Your task to perform on an android device: turn off translation in the chrome app Image 0: 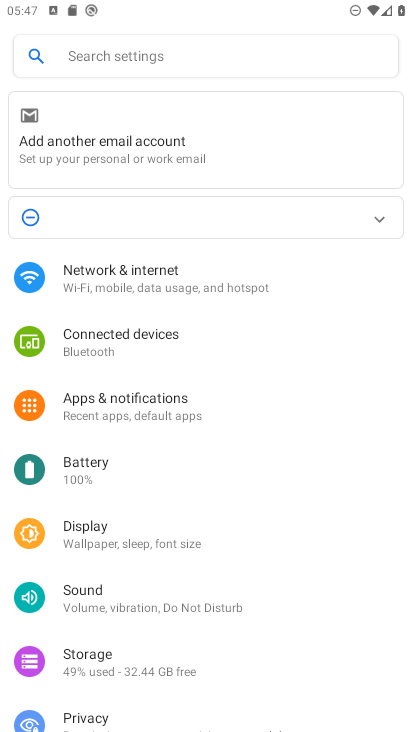
Step 0: press home button
Your task to perform on an android device: turn off translation in the chrome app Image 1: 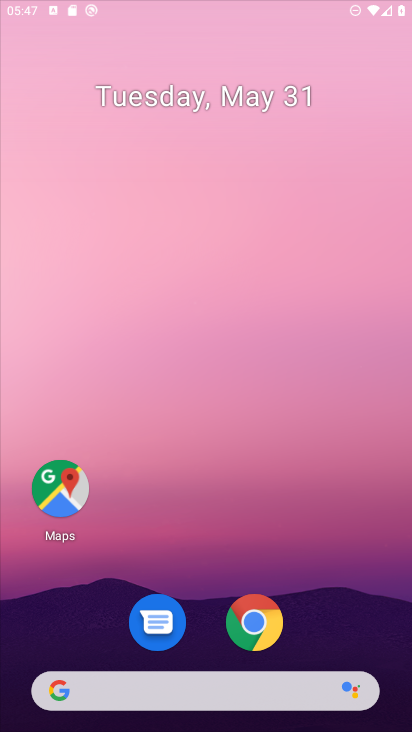
Step 1: drag from (240, 729) to (287, 24)
Your task to perform on an android device: turn off translation in the chrome app Image 2: 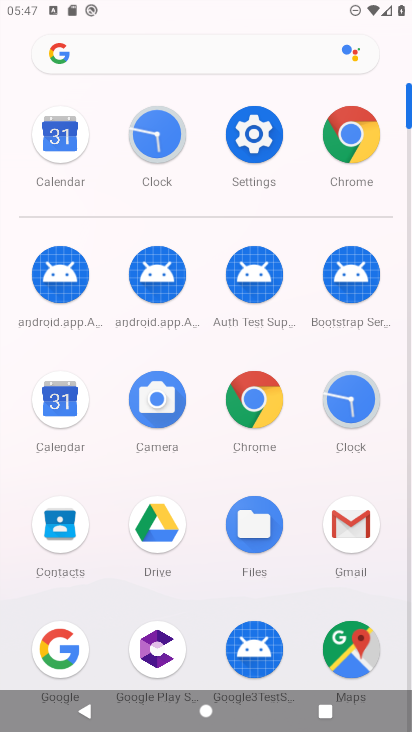
Step 2: click (264, 412)
Your task to perform on an android device: turn off translation in the chrome app Image 3: 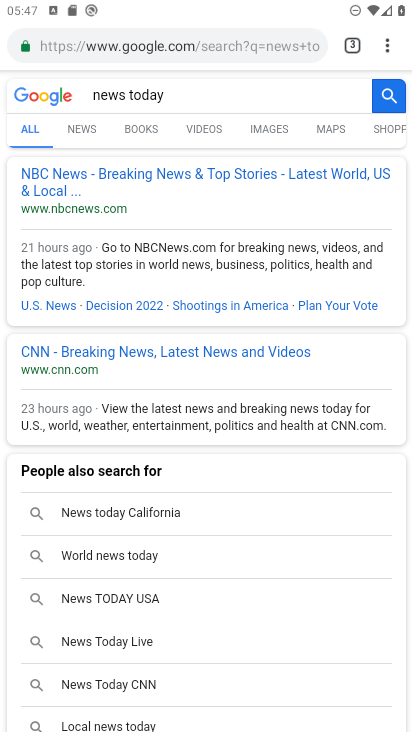
Step 3: drag from (388, 42) to (273, 514)
Your task to perform on an android device: turn off translation in the chrome app Image 4: 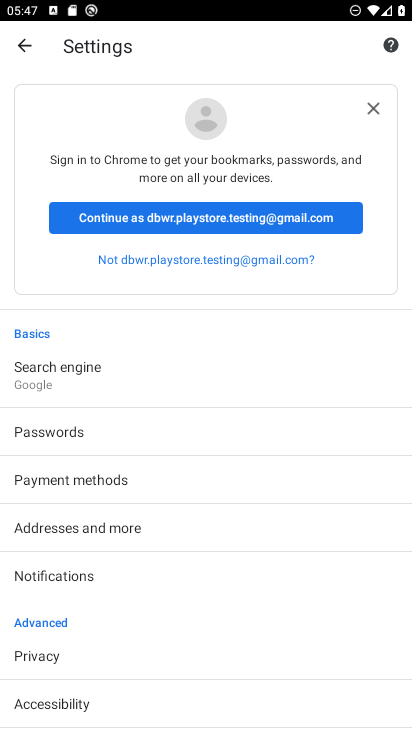
Step 4: drag from (194, 647) to (206, 235)
Your task to perform on an android device: turn off translation in the chrome app Image 5: 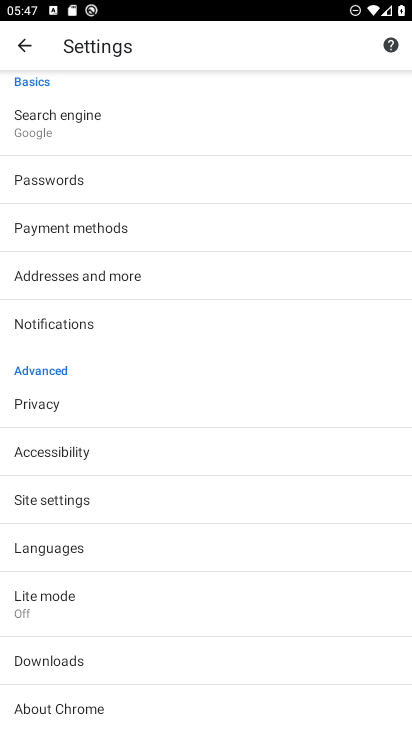
Step 5: click (79, 561)
Your task to perform on an android device: turn off translation in the chrome app Image 6: 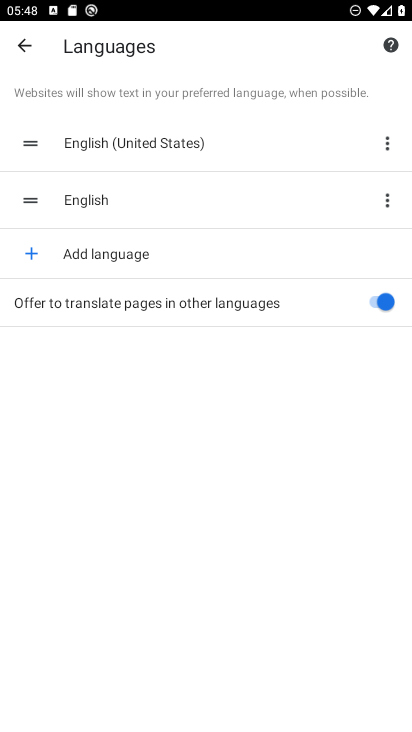
Step 6: click (369, 296)
Your task to perform on an android device: turn off translation in the chrome app Image 7: 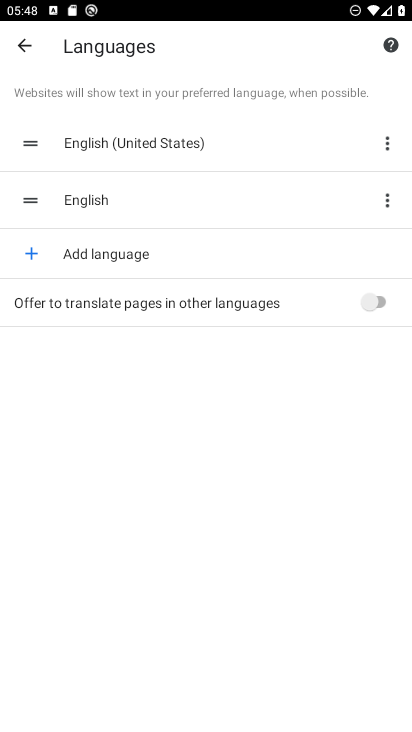
Step 7: task complete